Your task to perform on an android device: Empty the shopping cart on ebay.com. Add energizer triple a to the cart on ebay.com, then select checkout. Image 0: 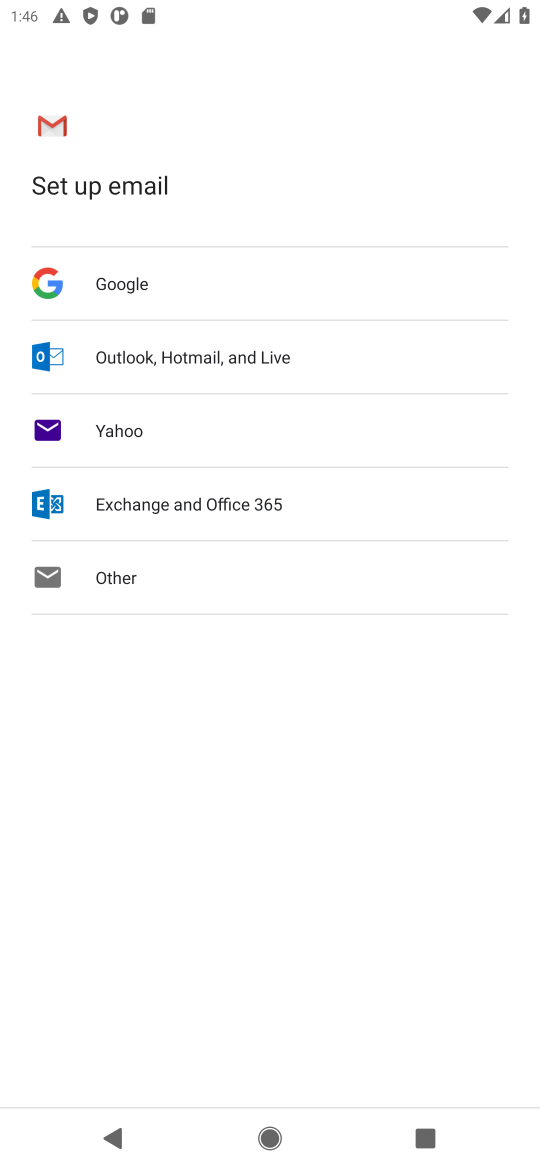
Step 0: press home button
Your task to perform on an android device: Empty the shopping cart on ebay.com. Add energizer triple a to the cart on ebay.com, then select checkout. Image 1: 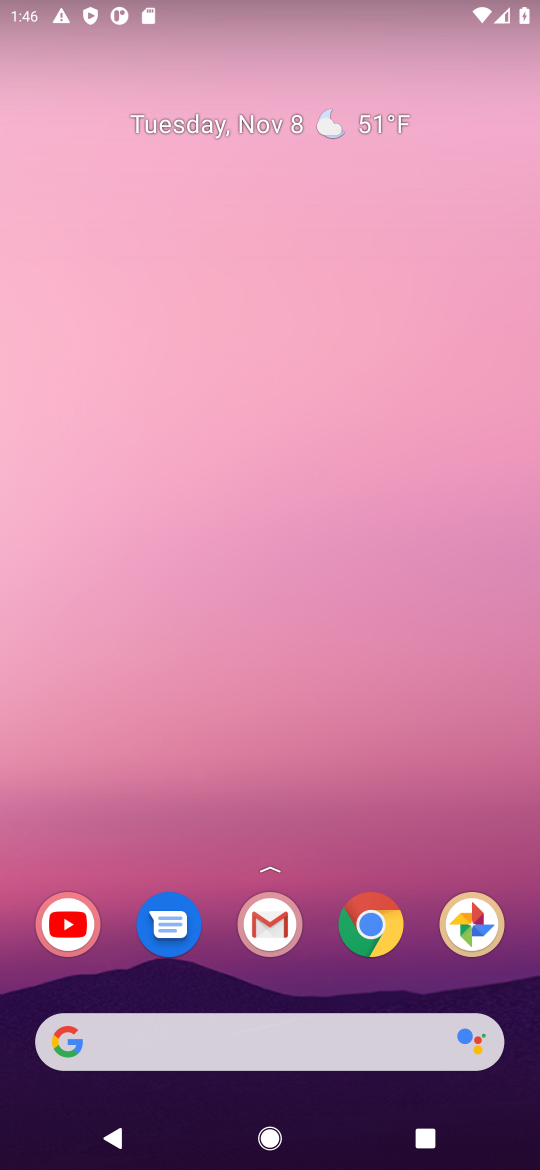
Step 1: click (386, 909)
Your task to perform on an android device: Empty the shopping cart on ebay.com. Add energizer triple a to the cart on ebay.com, then select checkout. Image 2: 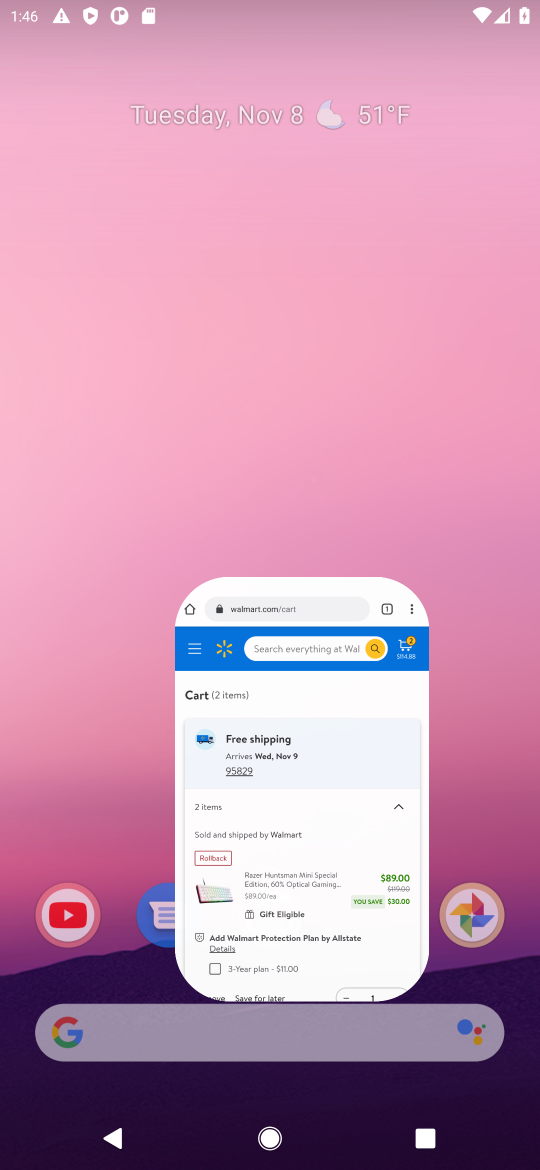
Step 2: click (363, 931)
Your task to perform on an android device: Empty the shopping cart on ebay.com. Add energizer triple a to the cart on ebay.com, then select checkout. Image 3: 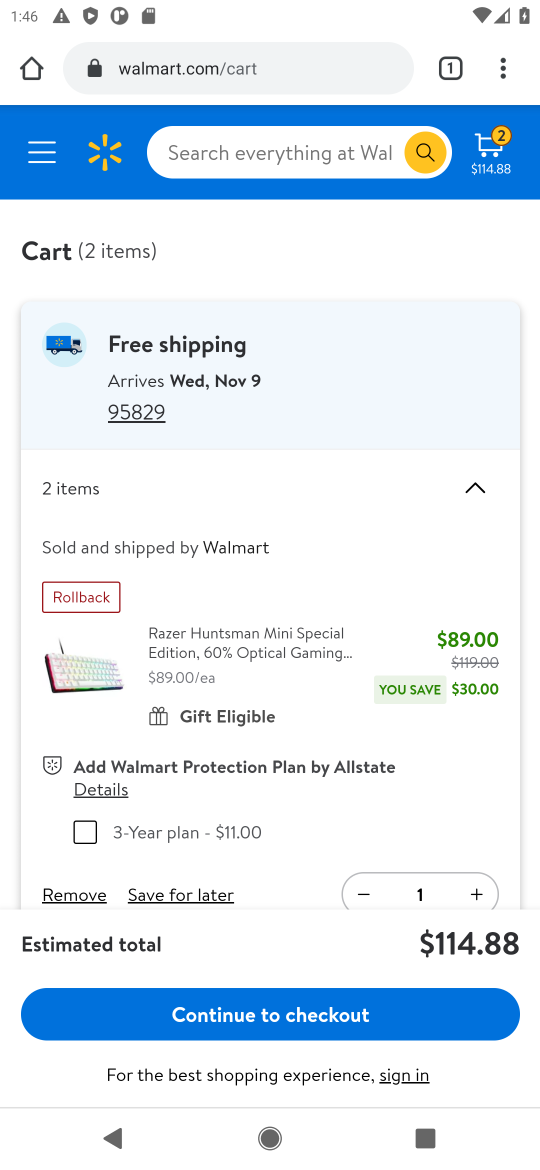
Step 3: click (210, 66)
Your task to perform on an android device: Empty the shopping cart on ebay.com. Add energizer triple a to the cart on ebay.com, then select checkout. Image 4: 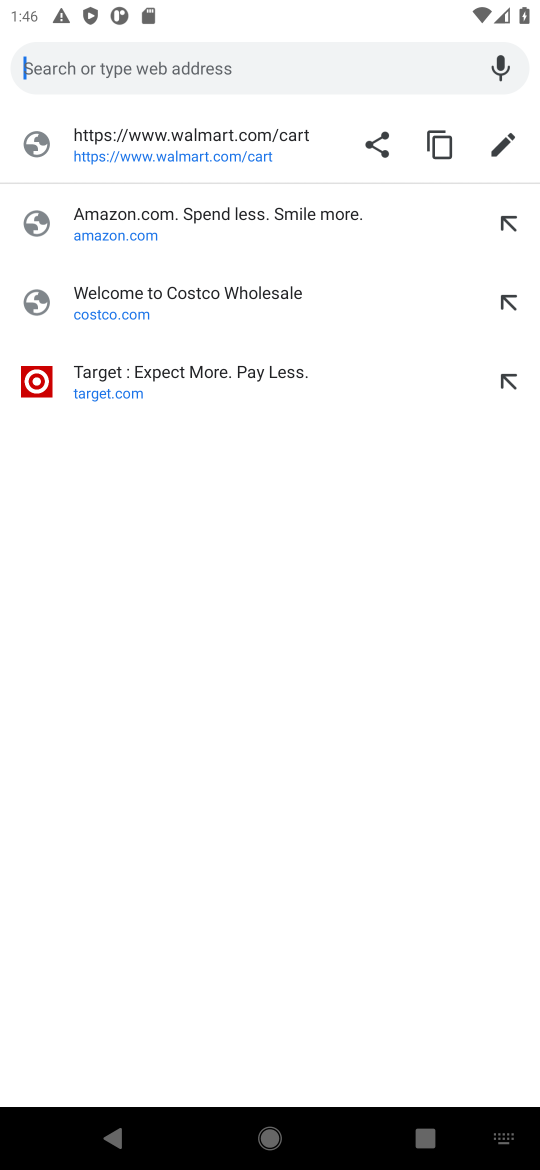
Step 4: type "ebay"
Your task to perform on an android device: Empty the shopping cart on ebay.com. Add energizer triple a to the cart on ebay.com, then select checkout. Image 5: 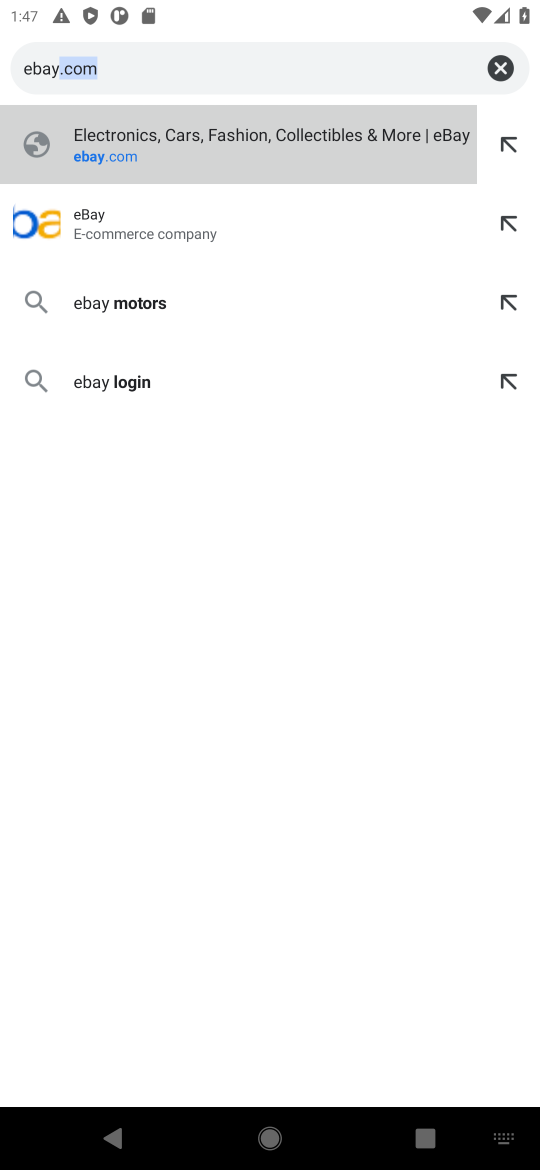
Step 5: click (183, 226)
Your task to perform on an android device: Empty the shopping cart on ebay.com. Add energizer triple a to the cart on ebay.com, then select checkout. Image 6: 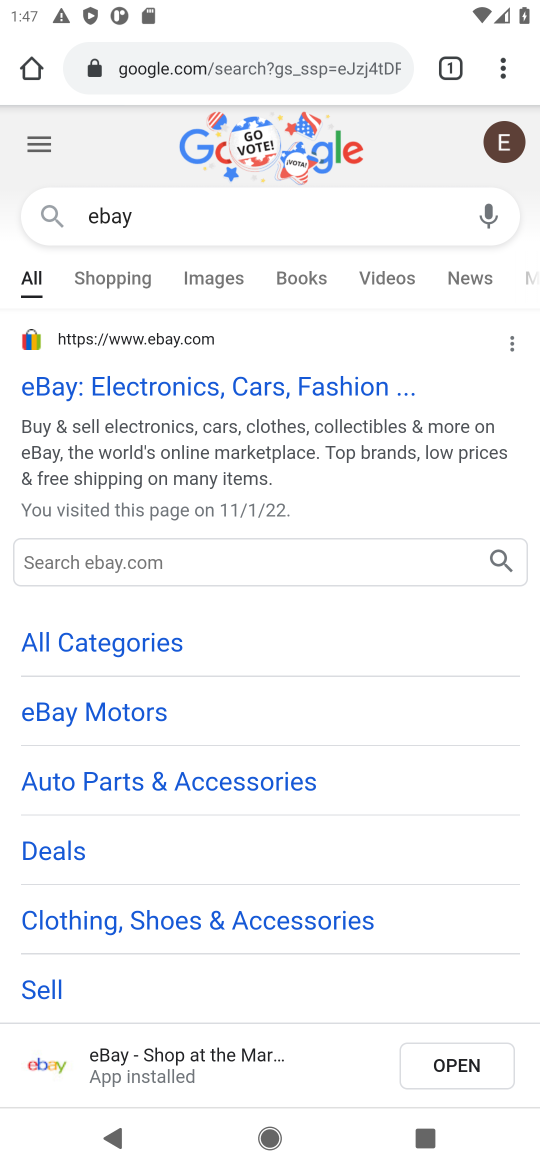
Step 6: click (93, 391)
Your task to perform on an android device: Empty the shopping cart on ebay.com. Add energizer triple a to the cart on ebay.com, then select checkout. Image 7: 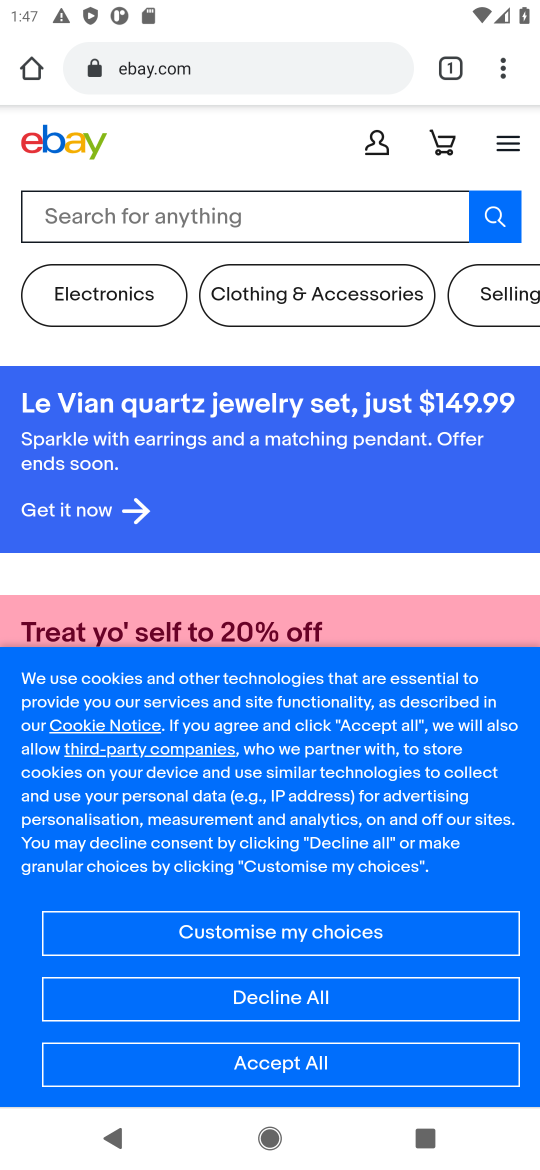
Step 7: click (437, 147)
Your task to perform on an android device: Empty the shopping cart on ebay.com. Add energizer triple a to the cart on ebay.com, then select checkout. Image 8: 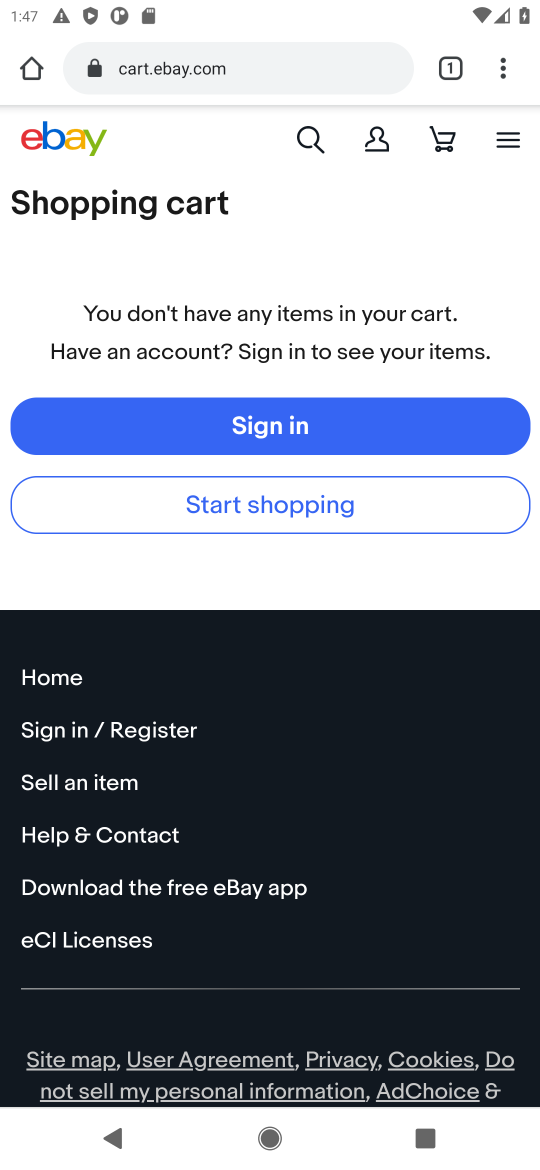
Step 8: click (219, 513)
Your task to perform on an android device: Empty the shopping cart on ebay.com. Add energizer triple a to the cart on ebay.com, then select checkout. Image 9: 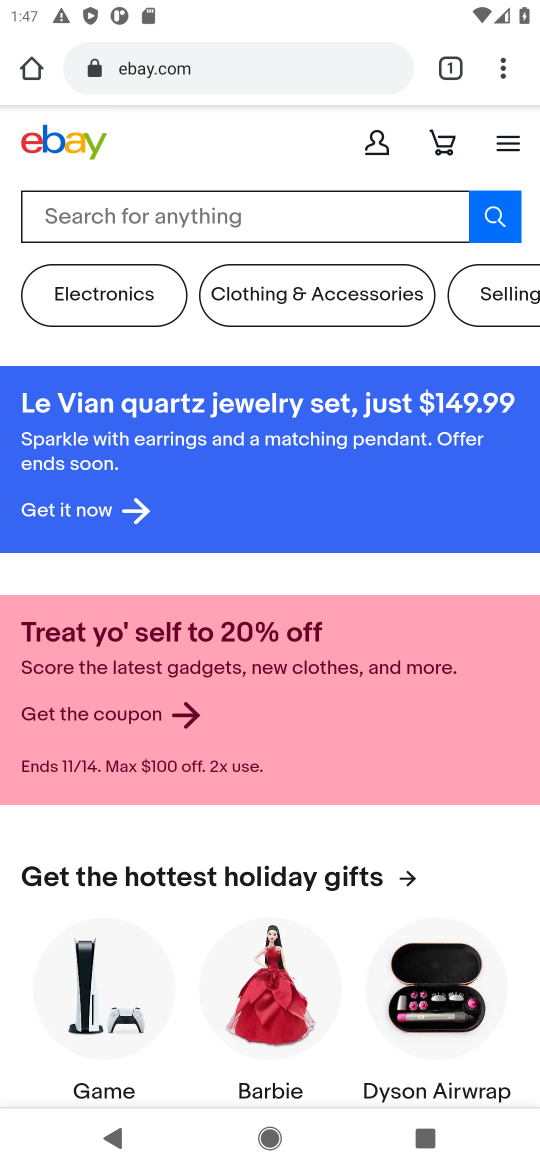
Step 9: click (135, 206)
Your task to perform on an android device: Empty the shopping cart on ebay.com. Add energizer triple a to the cart on ebay.com, then select checkout. Image 10: 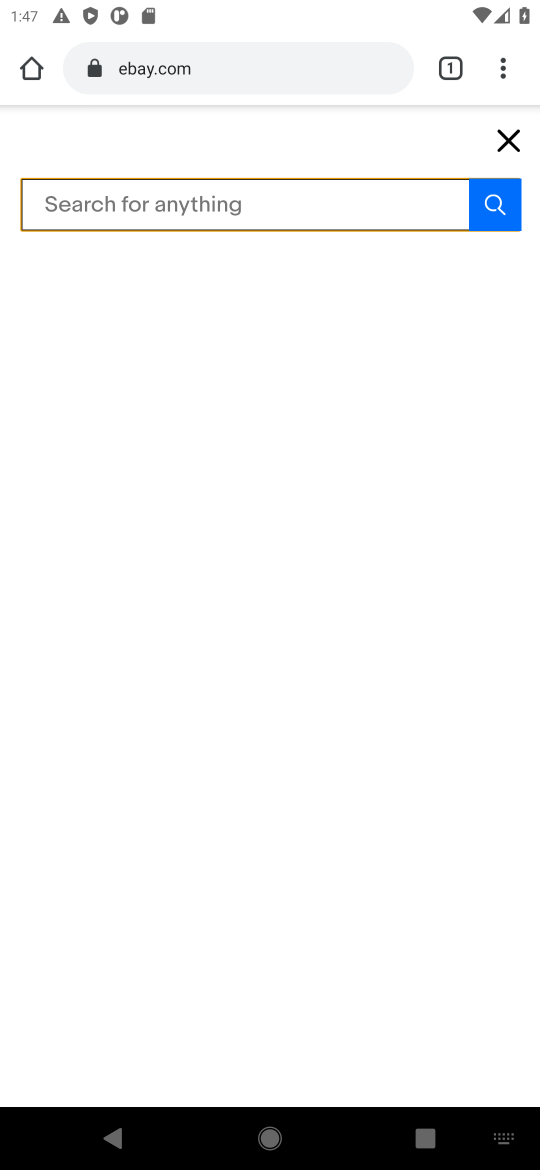
Step 10: type "energizer triple a "
Your task to perform on an android device: Empty the shopping cart on ebay.com. Add energizer triple a to the cart on ebay.com, then select checkout. Image 11: 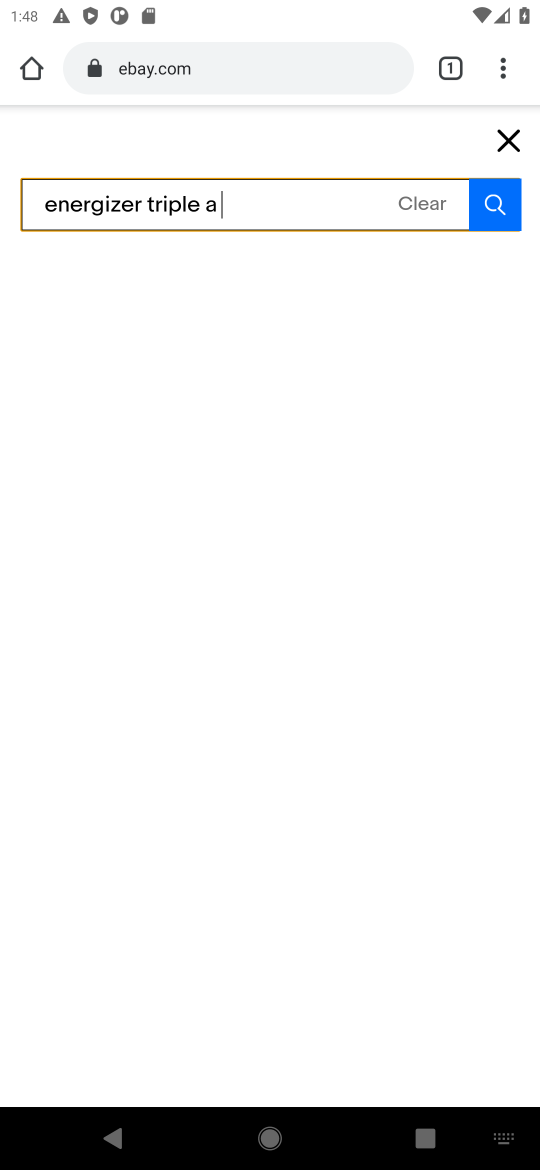
Step 11: click (489, 218)
Your task to perform on an android device: Empty the shopping cart on ebay.com. Add energizer triple a to the cart on ebay.com, then select checkout. Image 12: 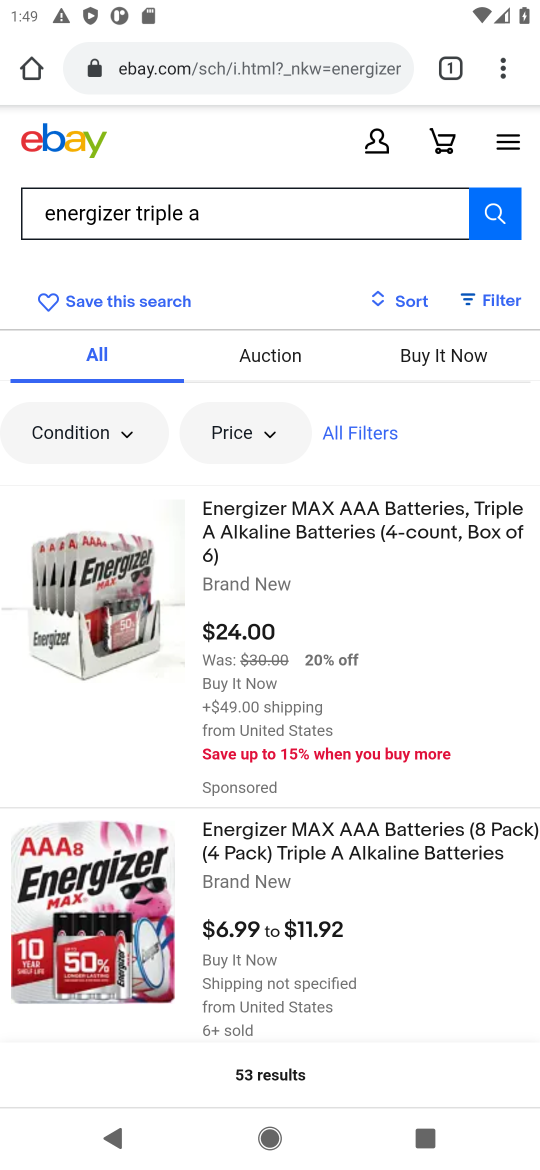
Step 12: click (478, 217)
Your task to perform on an android device: Empty the shopping cart on ebay.com. Add energizer triple a to the cart on ebay.com, then select checkout. Image 13: 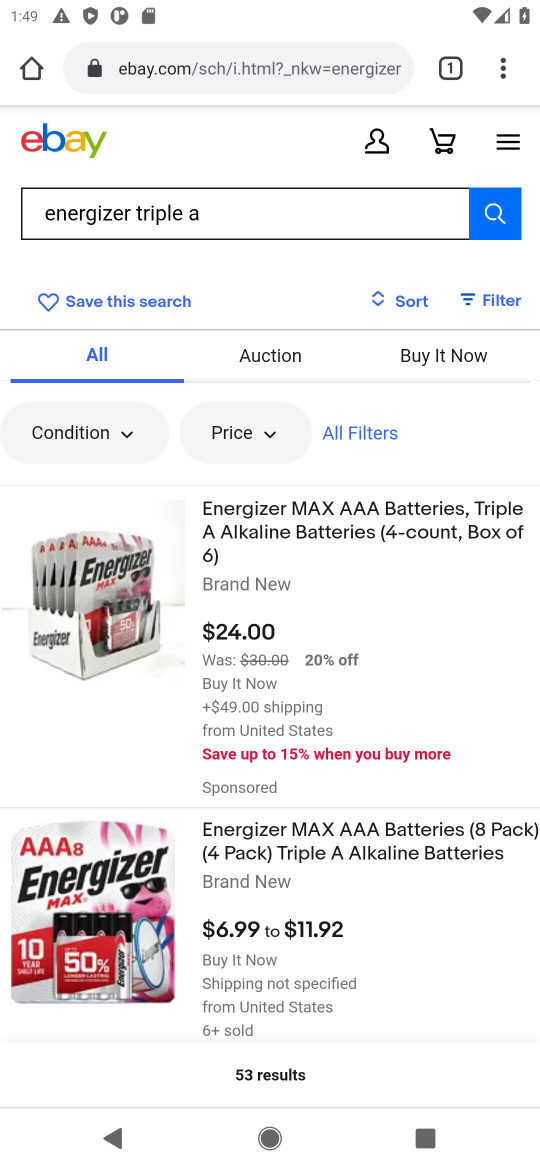
Step 13: click (263, 542)
Your task to perform on an android device: Empty the shopping cart on ebay.com. Add energizer triple a to the cart on ebay.com, then select checkout. Image 14: 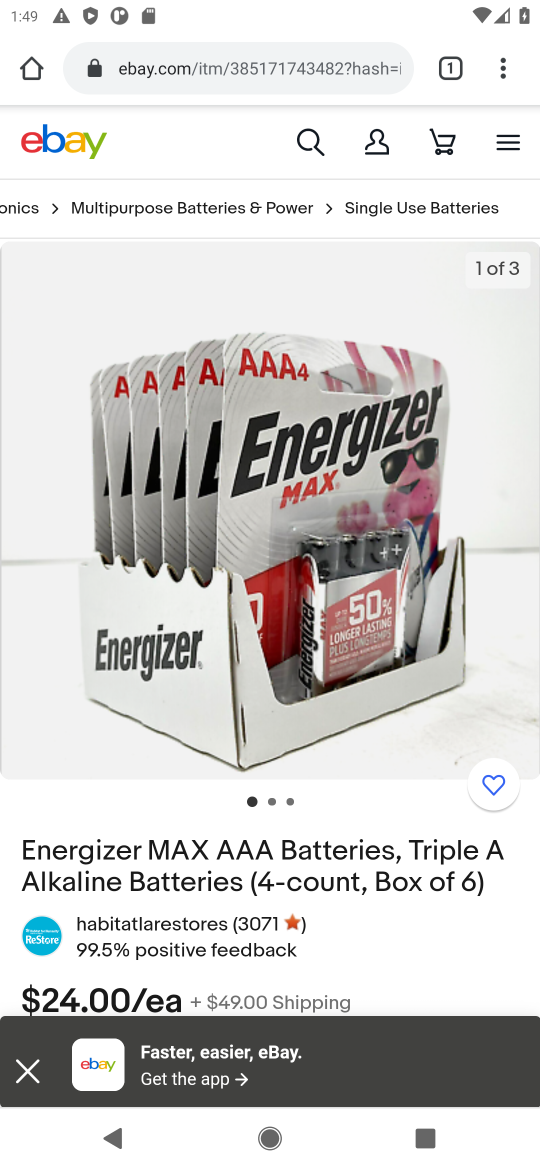
Step 14: drag from (418, 1028) to (473, 272)
Your task to perform on an android device: Empty the shopping cart on ebay.com. Add energizer triple a to the cart on ebay.com, then select checkout. Image 15: 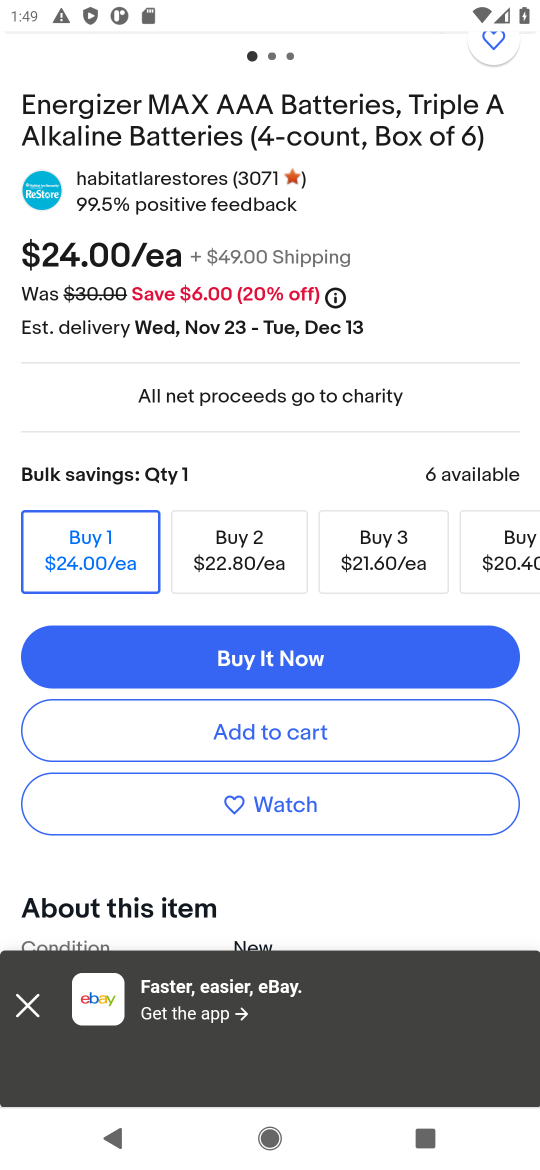
Step 15: click (248, 742)
Your task to perform on an android device: Empty the shopping cart on ebay.com. Add energizer triple a to the cart on ebay.com, then select checkout. Image 16: 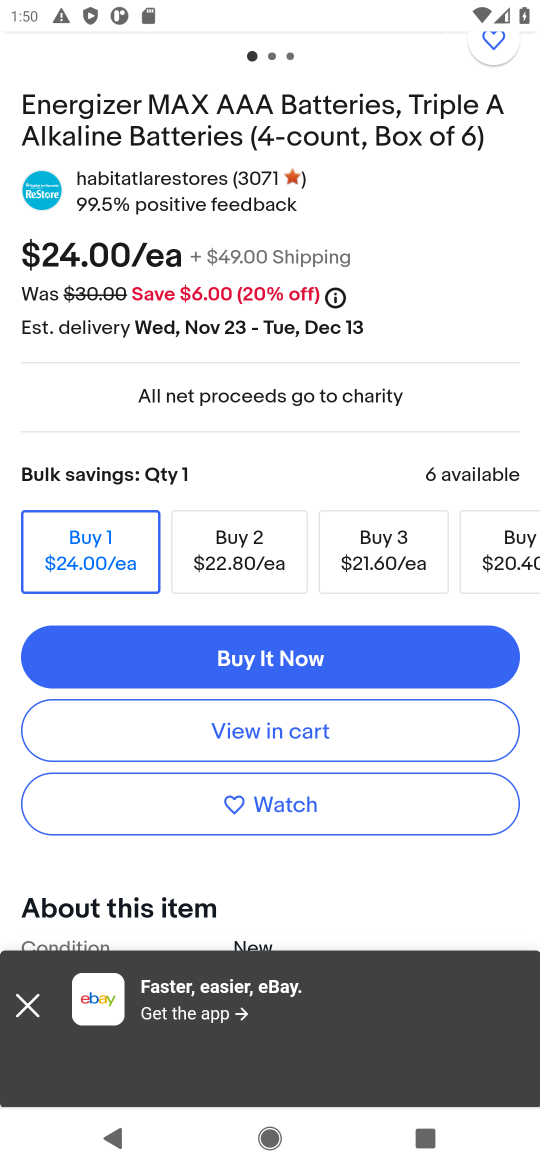
Step 16: click (227, 742)
Your task to perform on an android device: Empty the shopping cart on ebay.com. Add energizer triple a to the cart on ebay.com, then select checkout. Image 17: 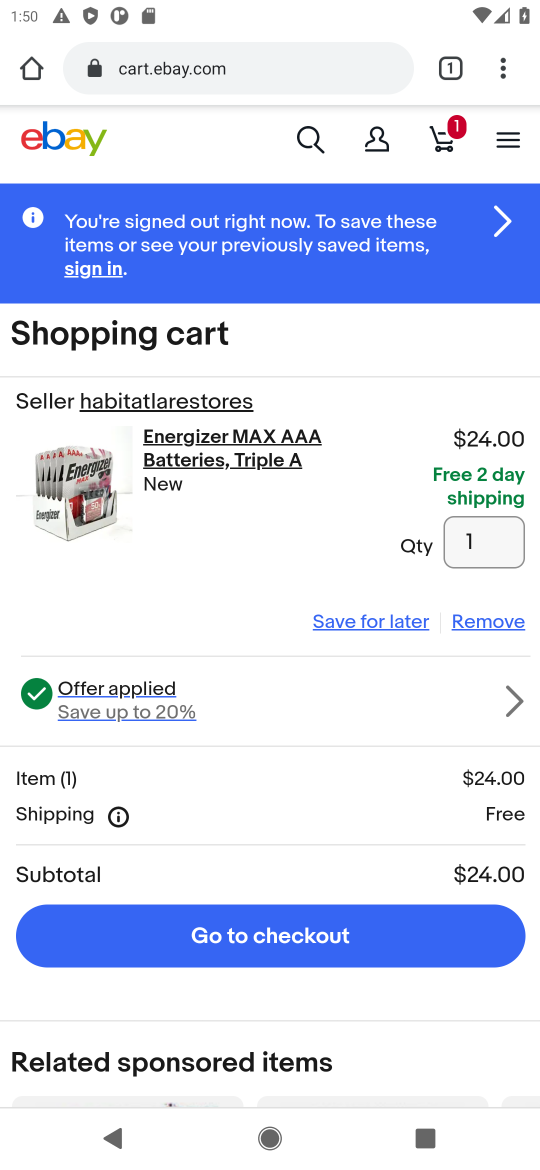
Step 17: click (198, 926)
Your task to perform on an android device: Empty the shopping cart on ebay.com. Add energizer triple a to the cart on ebay.com, then select checkout. Image 18: 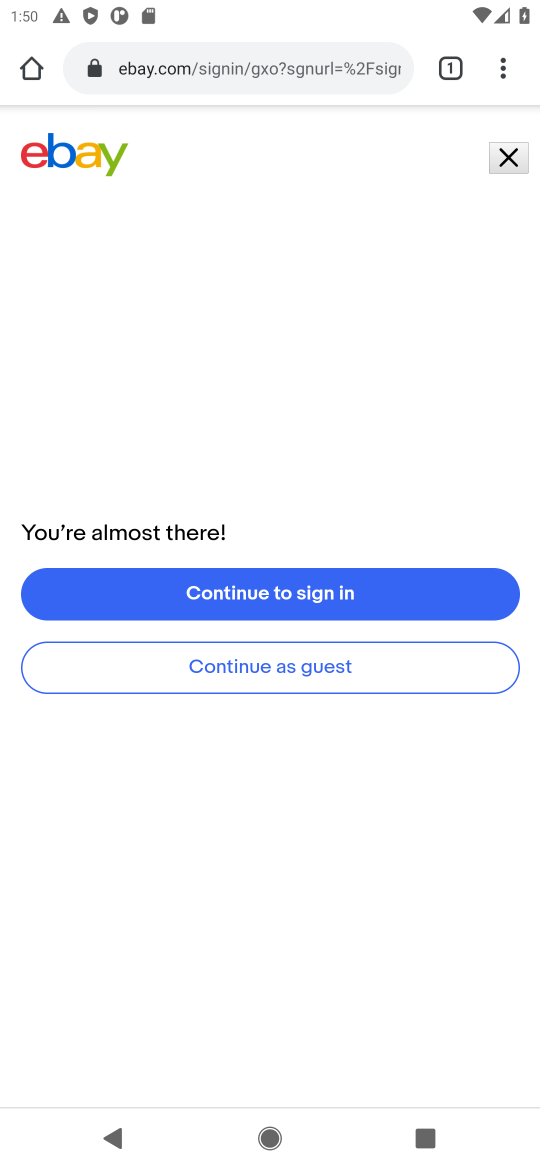
Step 18: task complete